Your task to perform on an android device: Open settings Image 0: 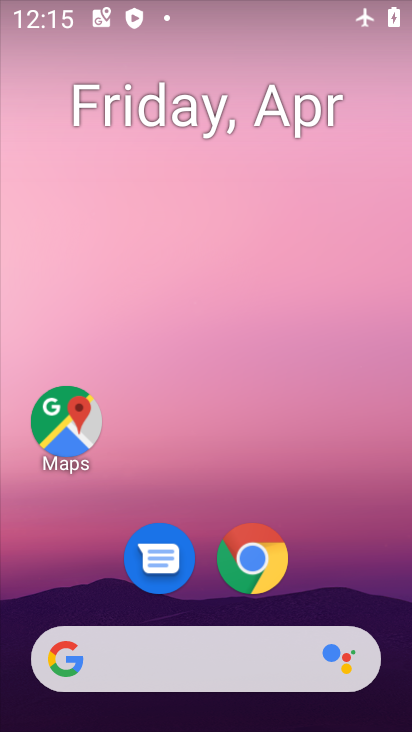
Step 0: drag from (296, 329) to (261, 102)
Your task to perform on an android device: Open settings Image 1: 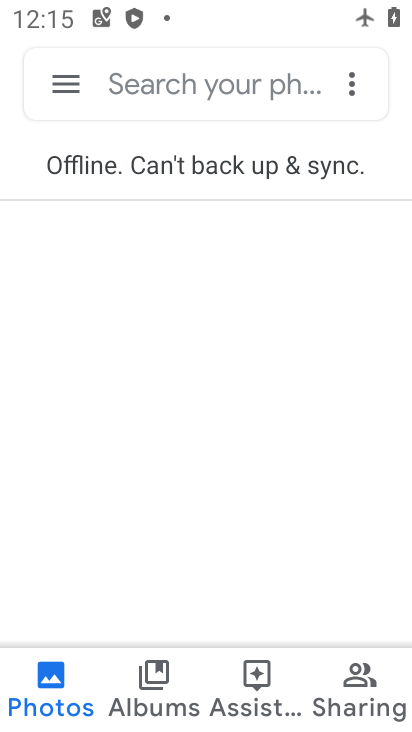
Step 1: press home button
Your task to perform on an android device: Open settings Image 2: 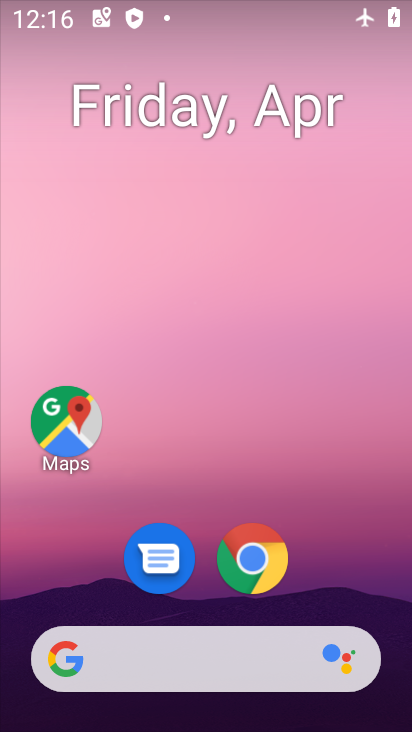
Step 2: drag from (352, 601) to (242, 62)
Your task to perform on an android device: Open settings Image 3: 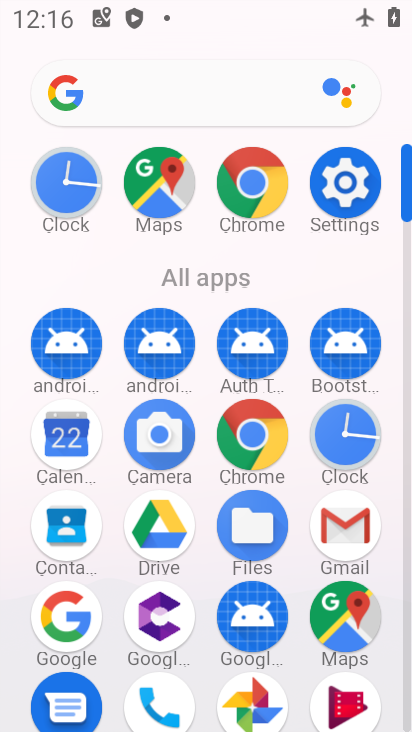
Step 3: click (343, 183)
Your task to perform on an android device: Open settings Image 4: 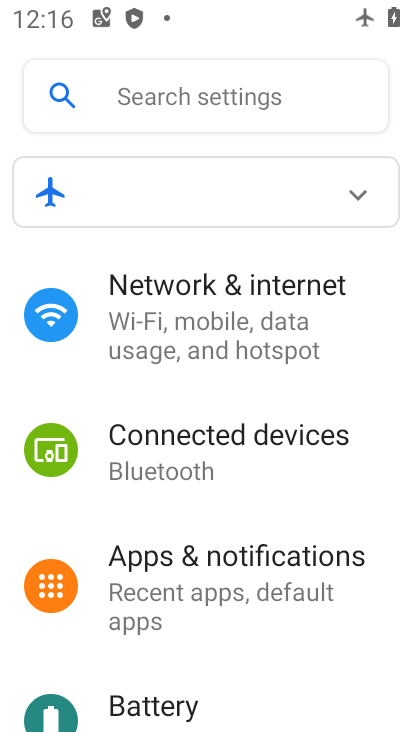
Step 4: task complete